Your task to perform on an android device: Search for vegetarian restaurants on Maps Image 0: 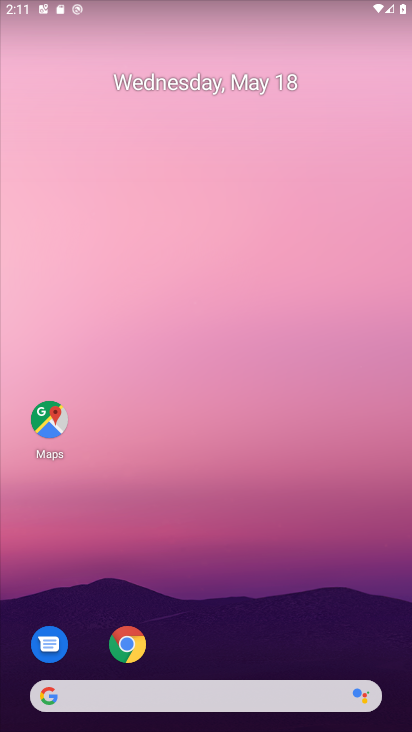
Step 0: click (45, 407)
Your task to perform on an android device: Search for vegetarian restaurants on Maps Image 1: 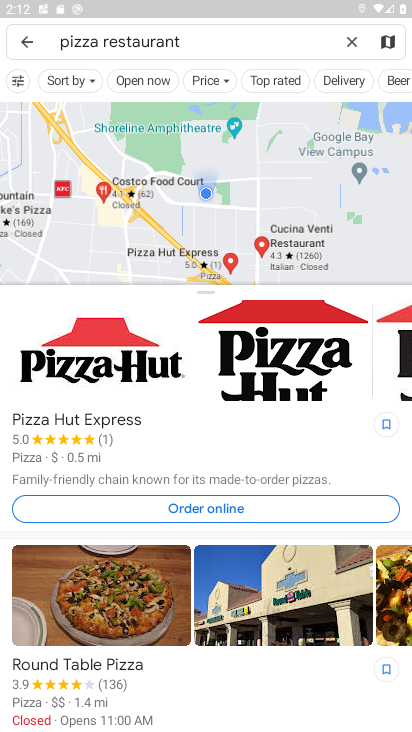
Step 1: click (351, 38)
Your task to perform on an android device: Search for vegetarian restaurants on Maps Image 2: 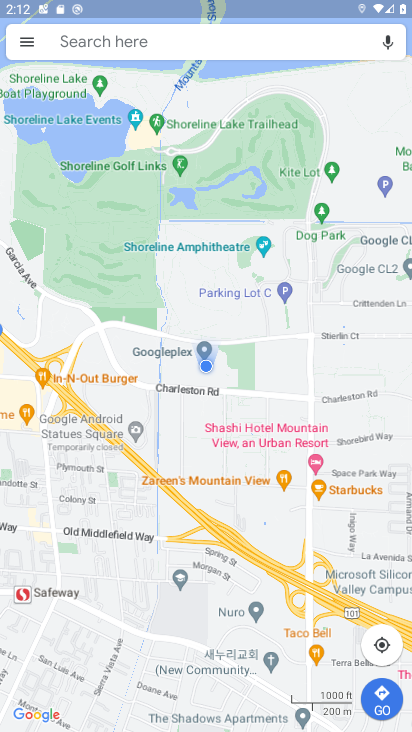
Step 2: click (266, 46)
Your task to perform on an android device: Search for vegetarian restaurants on Maps Image 3: 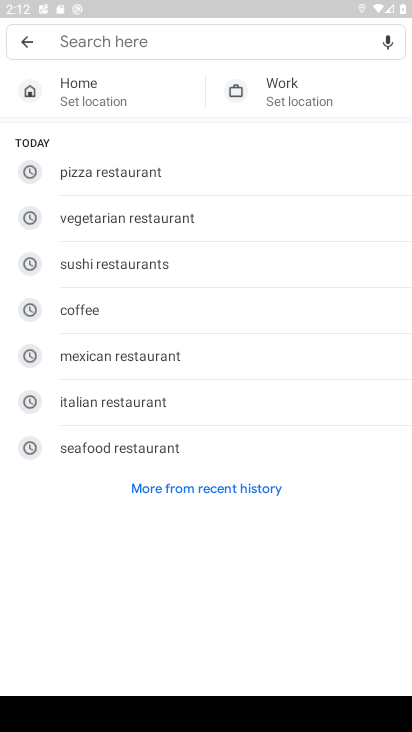
Step 3: type "vegetarian restaurants"
Your task to perform on an android device: Search for vegetarian restaurants on Maps Image 4: 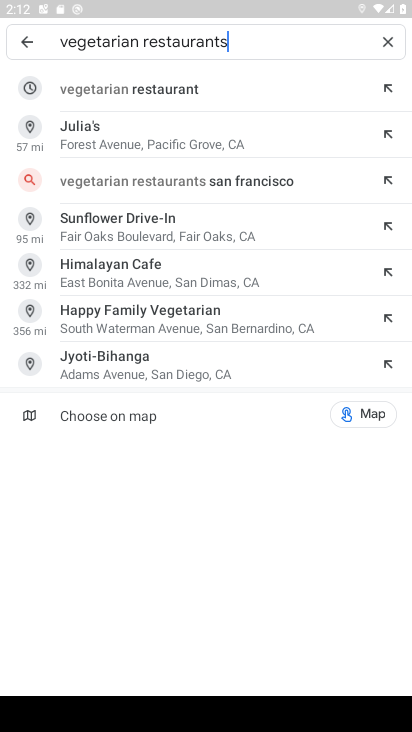
Step 4: click (172, 89)
Your task to perform on an android device: Search for vegetarian restaurants on Maps Image 5: 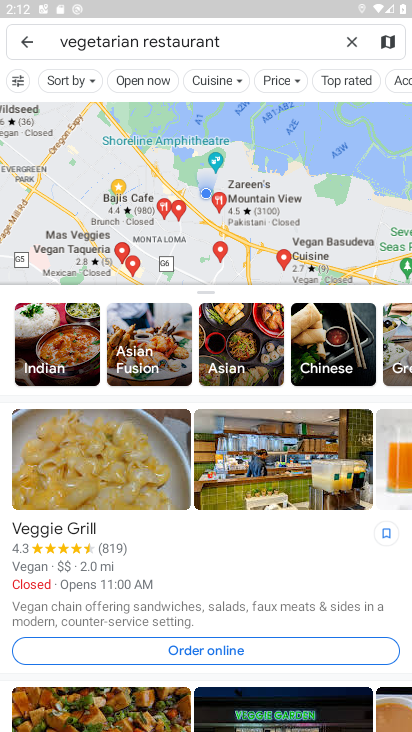
Step 5: task complete